Your task to perform on an android device: Go to Yahoo.com Image 0: 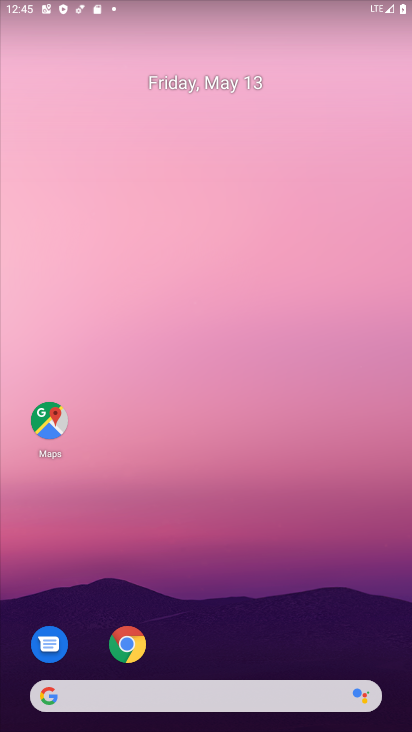
Step 0: drag from (325, 639) to (199, 73)
Your task to perform on an android device: Go to Yahoo.com Image 1: 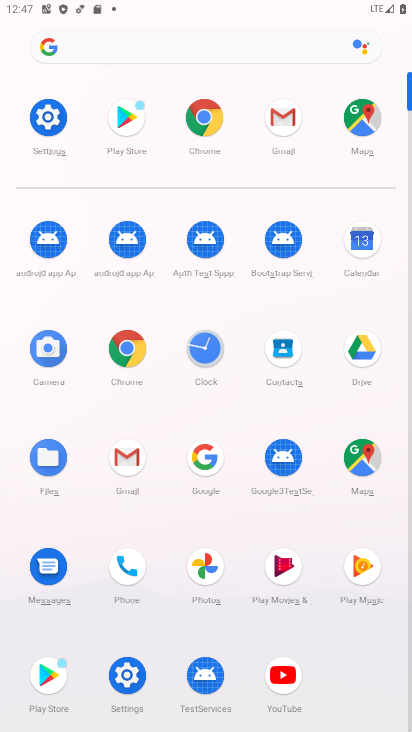
Step 1: click (141, 342)
Your task to perform on an android device: Go to Yahoo.com Image 2: 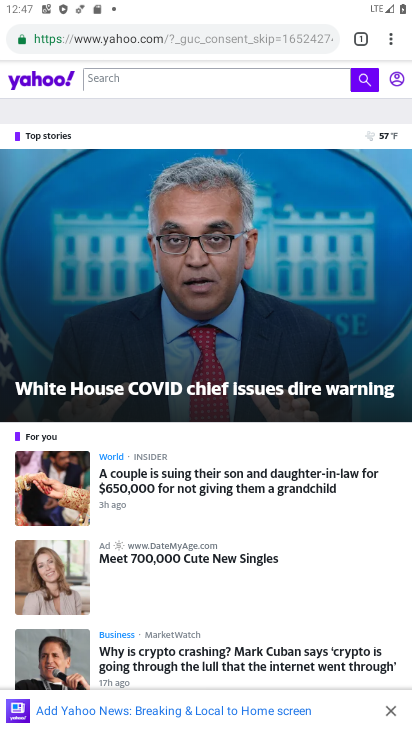
Step 2: task complete